Your task to perform on an android device: change the clock display to digital Image 0: 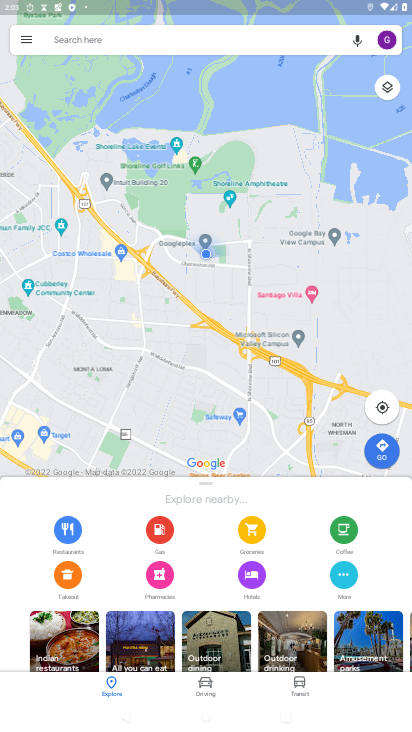
Step 0: press home button
Your task to perform on an android device: change the clock display to digital Image 1: 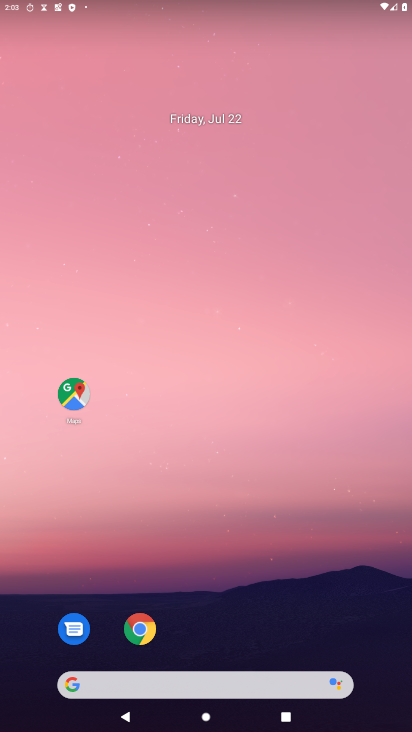
Step 1: press home button
Your task to perform on an android device: change the clock display to digital Image 2: 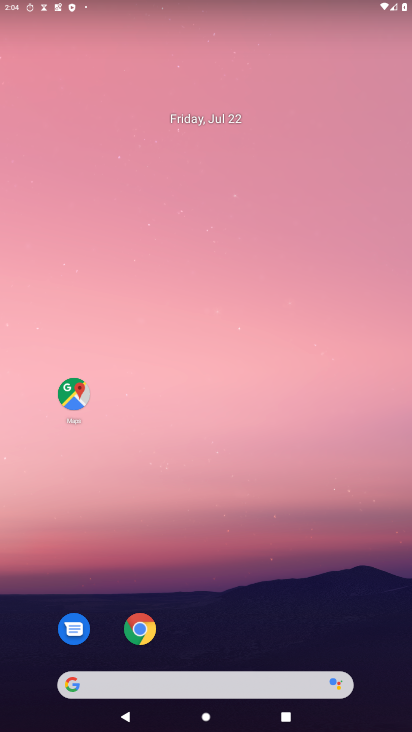
Step 2: press home button
Your task to perform on an android device: change the clock display to digital Image 3: 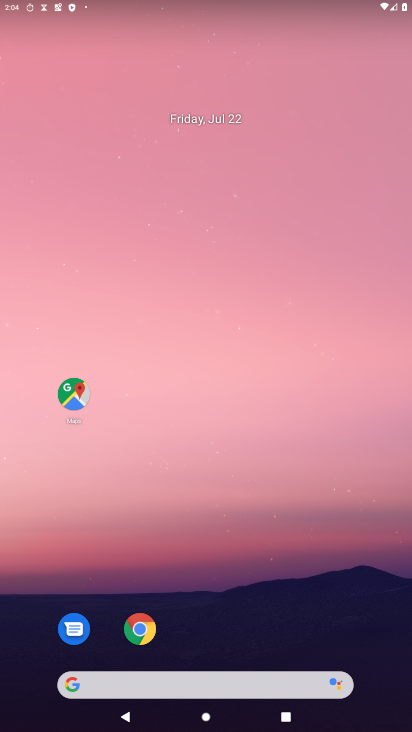
Step 3: drag from (155, 673) to (172, 18)
Your task to perform on an android device: change the clock display to digital Image 4: 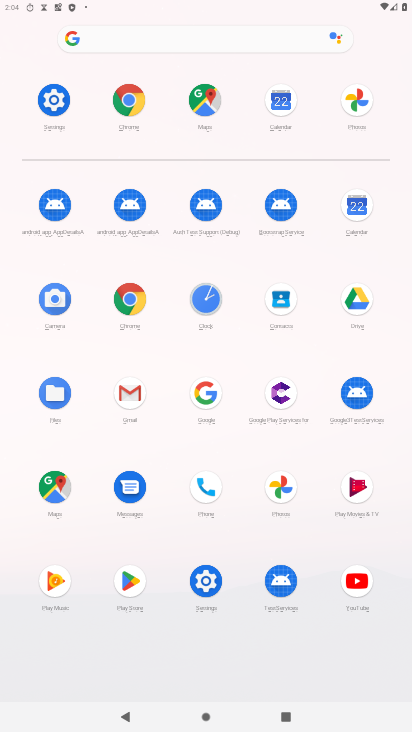
Step 4: click (211, 307)
Your task to perform on an android device: change the clock display to digital Image 5: 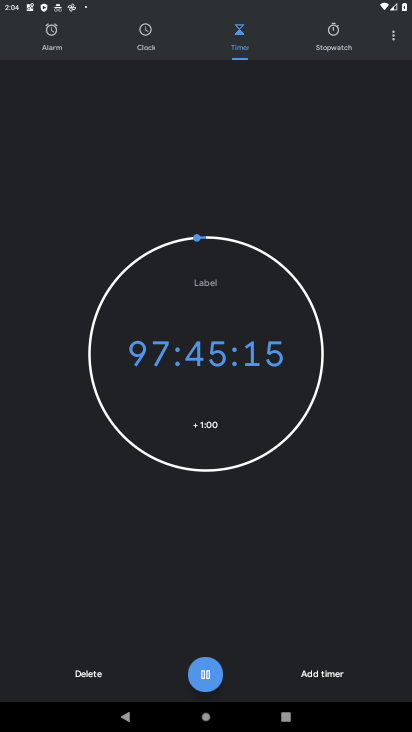
Step 5: drag from (405, 42) to (321, 67)
Your task to perform on an android device: change the clock display to digital Image 6: 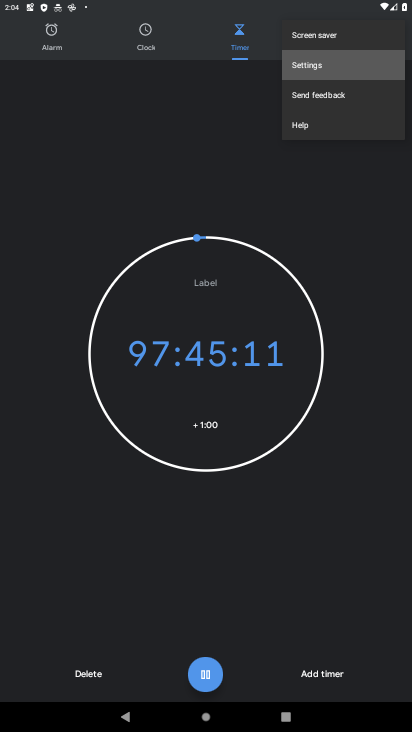
Step 6: click (321, 67)
Your task to perform on an android device: change the clock display to digital Image 7: 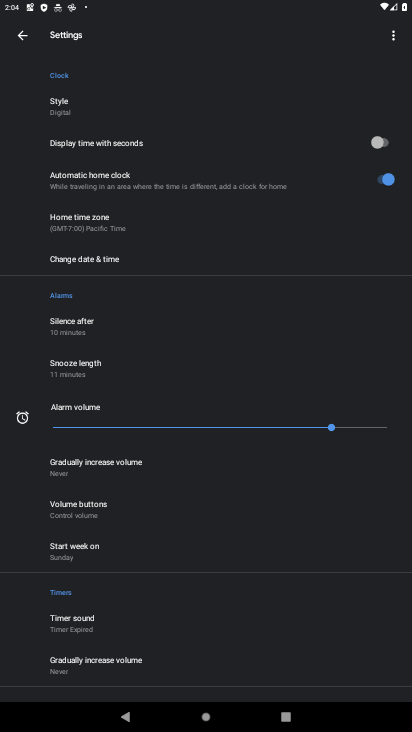
Step 7: click (96, 113)
Your task to perform on an android device: change the clock display to digital Image 8: 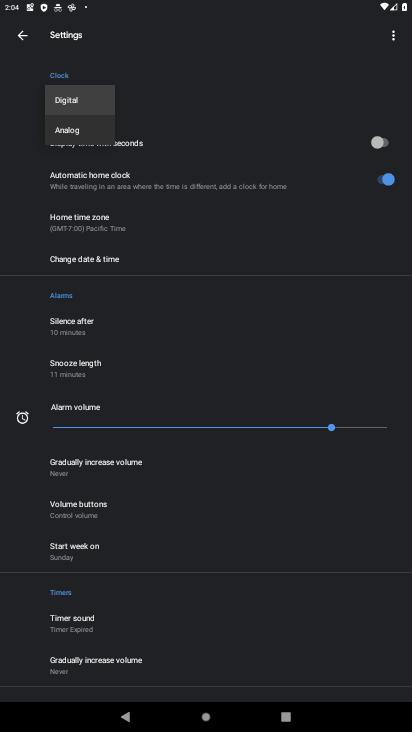
Step 8: click (87, 97)
Your task to perform on an android device: change the clock display to digital Image 9: 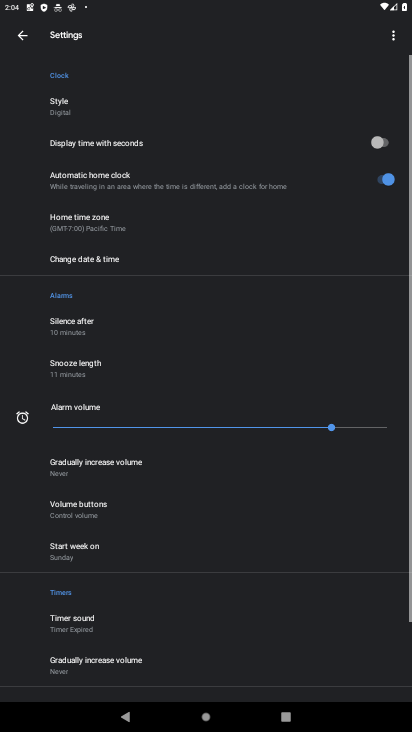
Step 9: task complete